Your task to perform on an android device: Search for Italian restaurants on Maps Image 0: 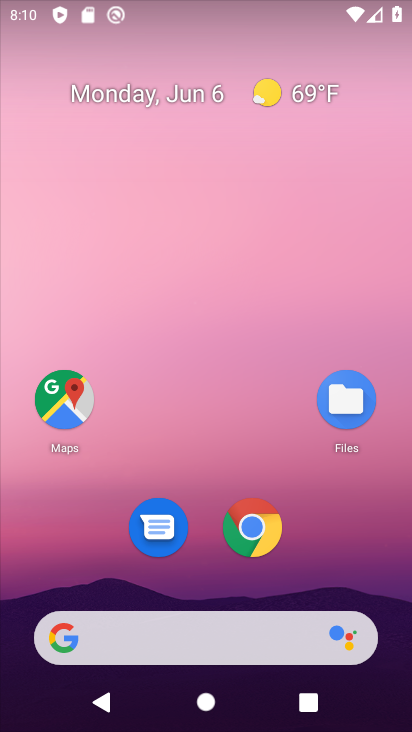
Step 0: click (59, 395)
Your task to perform on an android device: Search for Italian restaurants on Maps Image 1: 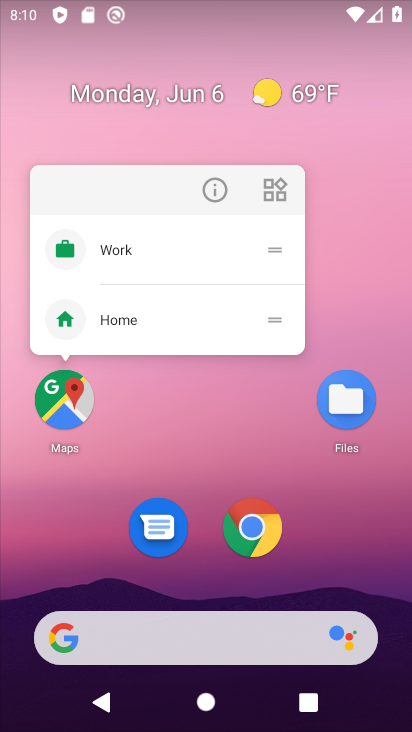
Step 1: click (65, 402)
Your task to perform on an android device: Search for Italian restaurants on Maps Image 2: 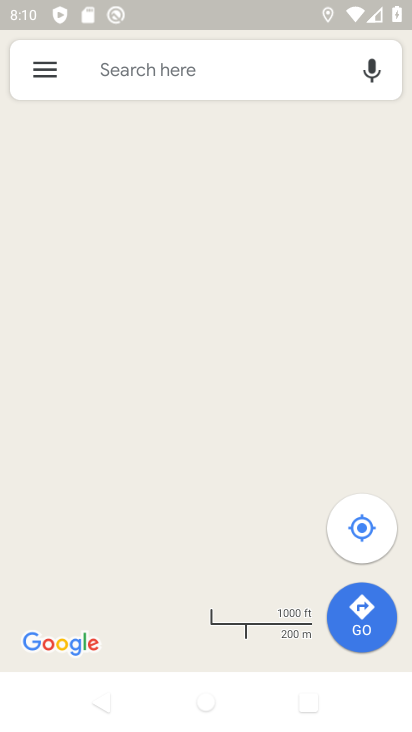
Step 2: click (217, 68)
Your task to perform on an android device: Search for Italian restaurants on Maps Image 3: 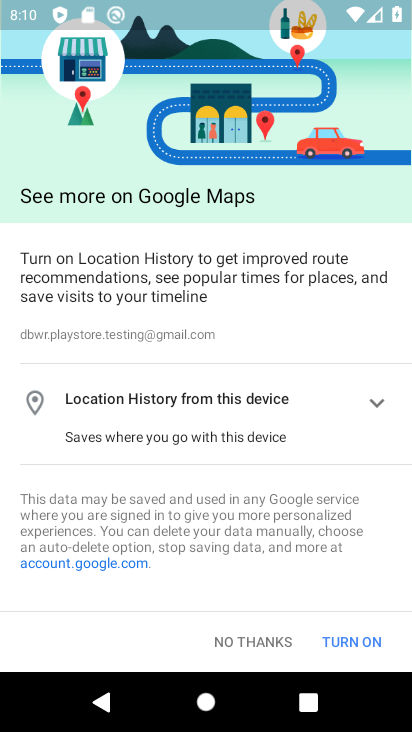
Step 3: click (283, 639)
Your task to perform on an android device: Search for Italian restaurants on Maps Image 4: 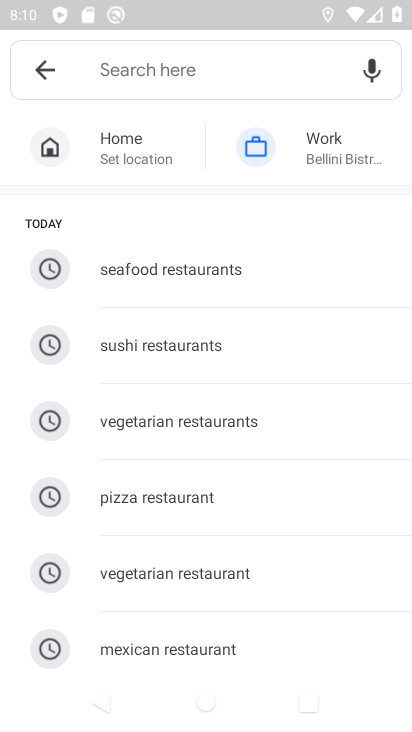
Step 4: drag from (189, 609) to (184, 313)
Your task to perform on an android device: Search for Italian restaurants on Maps Image 5: 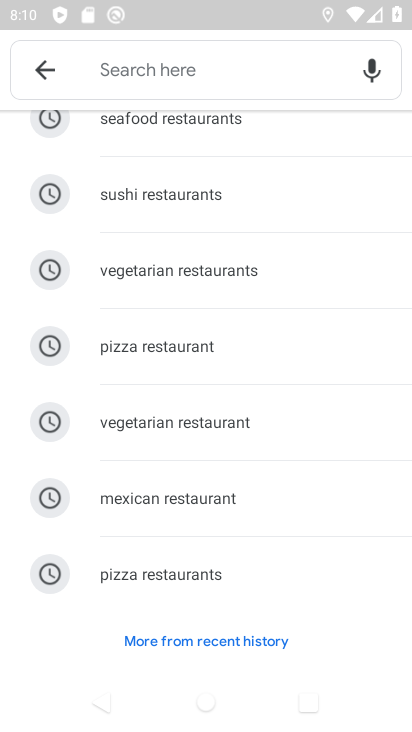
Step 5: click (192, 629)
Your task to perform on an android device: Search for Italian restaurants on Maps Image 6: 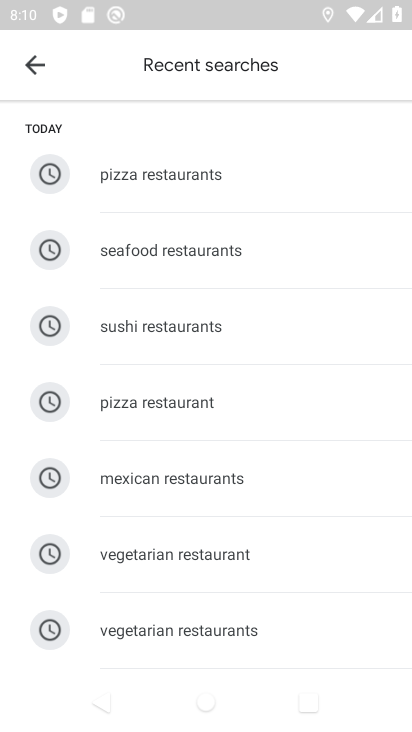
Step 6: drag from (231, 516) to (240, 214)
Your task to perform on an android device: Search for Italian restaurants on Maps Image 7: 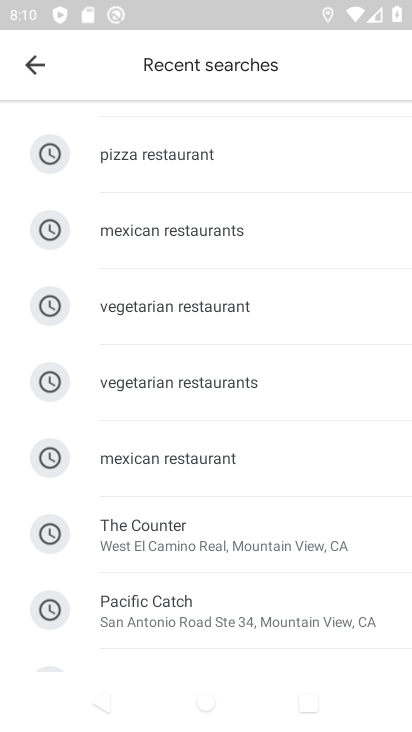
Step 7: drag from (200, 572) to (201, 152)
Your task to perform on an android device: Search for Italian restaurants on Maps Image 8: 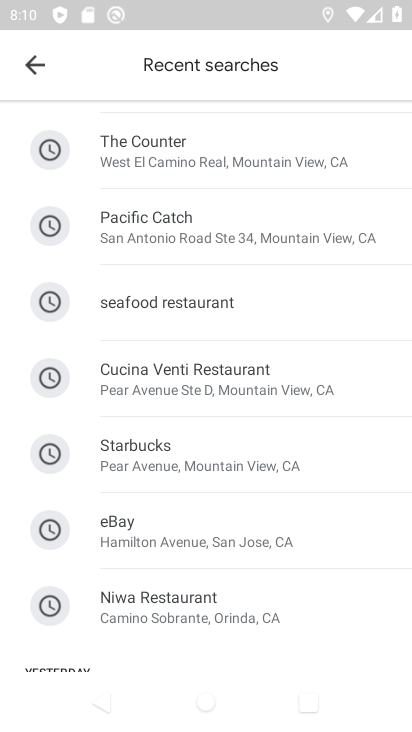
Step 8: press back button
Your task to perform on an android device: Search for Italian restaurants on Maps Image 9: 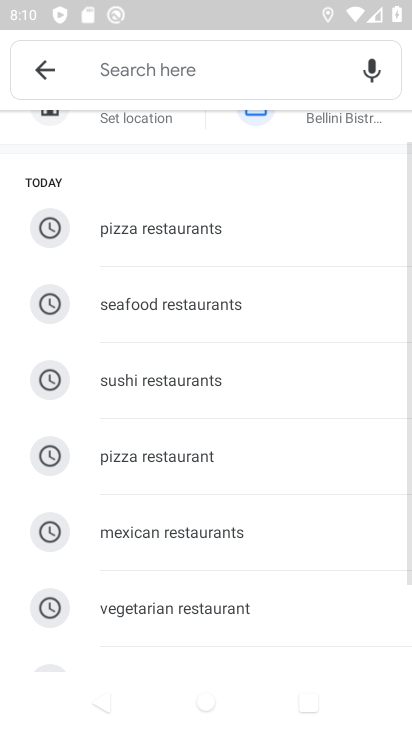
Step 9: click (192, 68)
Your task to perform on an android device: Search for Italian restaurants on Maps Image 10: 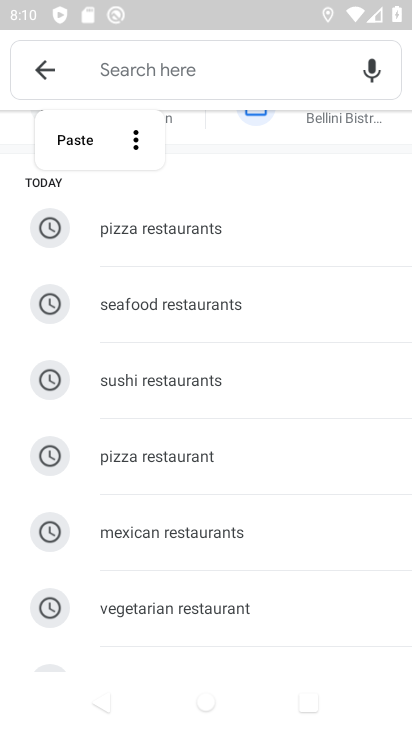
Step 10: type "italian restaurent"
Your task to perform on an android device: Search for Italian restaurants on Maps Image 11: 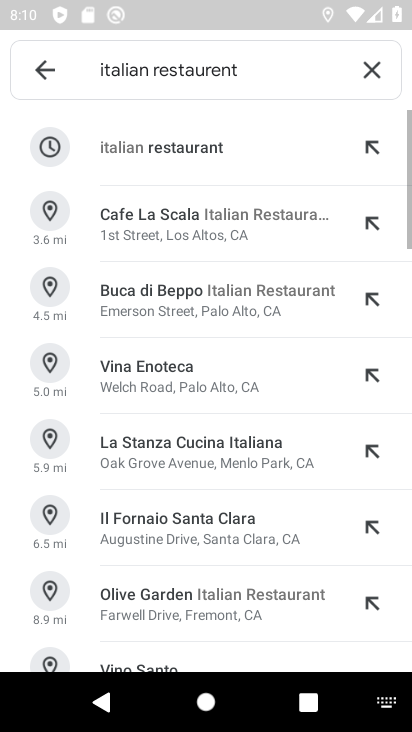
Step 11: click (157, 152)
Your task to perform on an android device: Search for Italian restaurants on Maps Image 12: 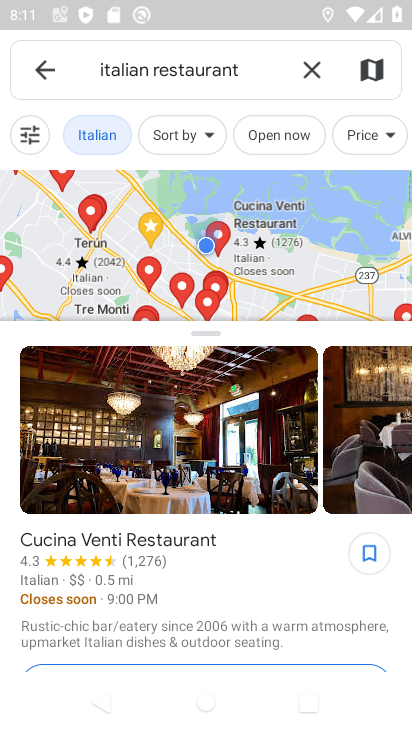
Step 12: task complete